Your task to perform on an android device: Open battery settings Image 0: 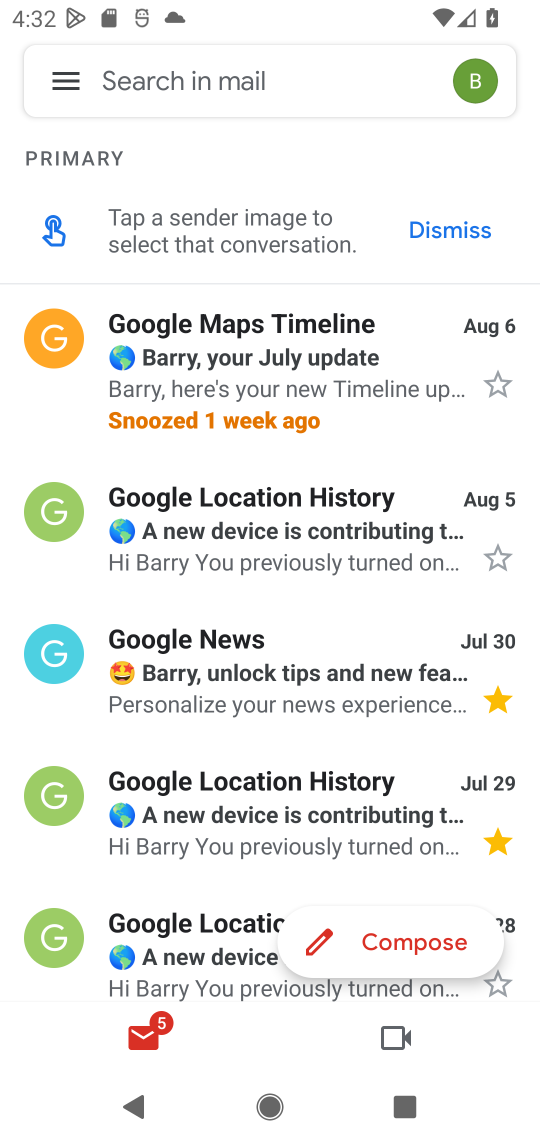
Step 0: press home button
Your task to perform on an android device: Open battery settings Image 1: 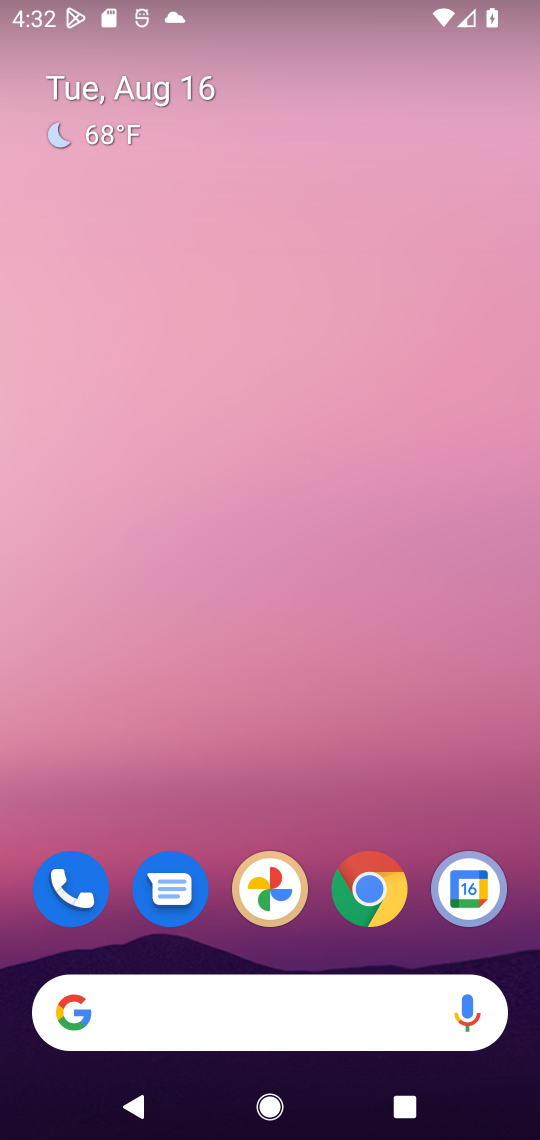
Step 1: drag from (270, 690) to (300, 97)
Your task to perform on an android device: Open battery settings Image 2: 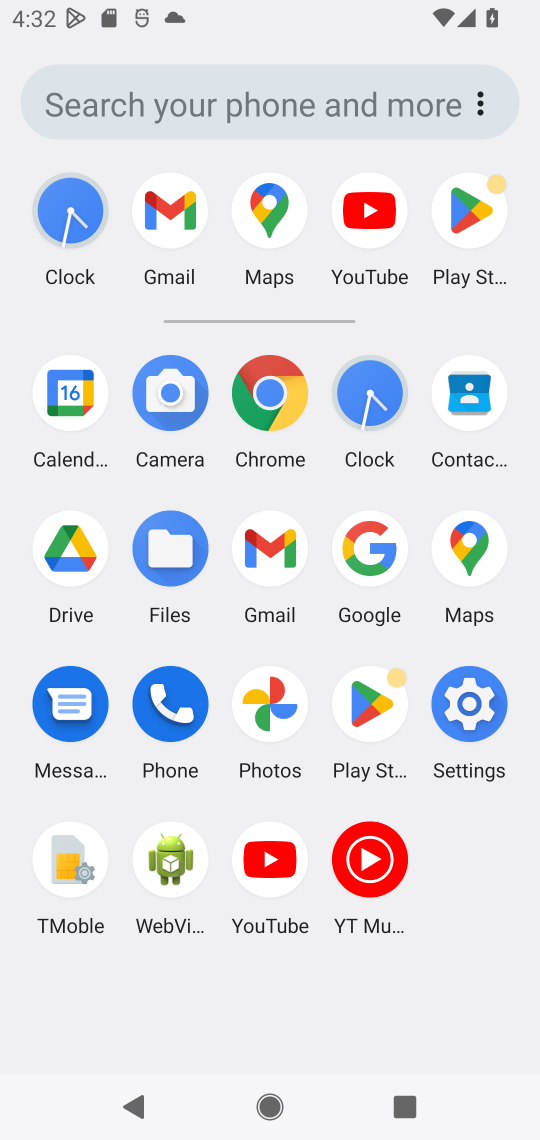
Step 2: click (510, 724)
Your task to perform on an android device: Open battery settings Image 3: 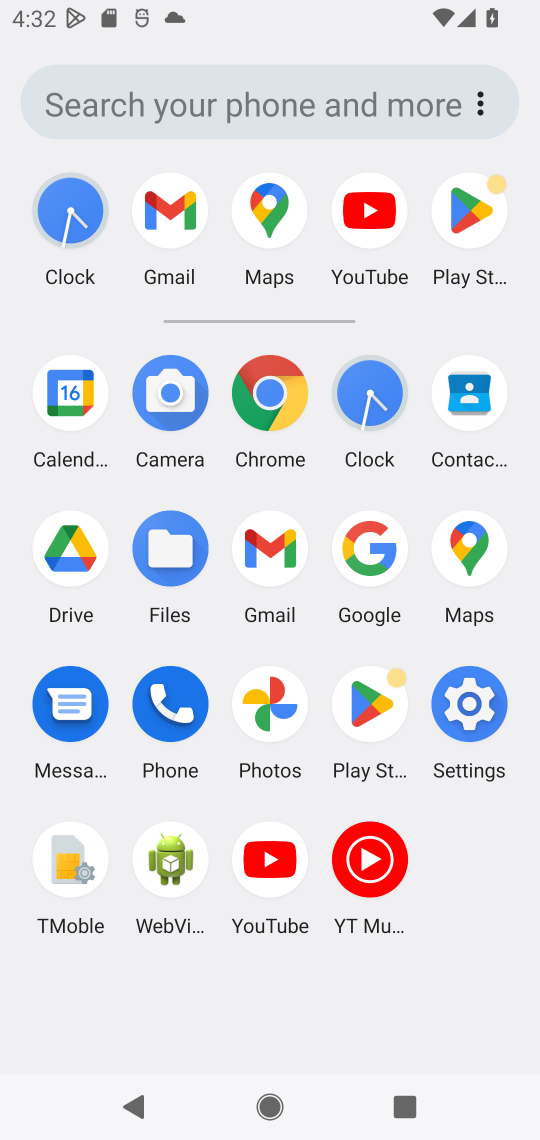
Step 3: click (476, 711)
Your task to perform on an android device: Open battery settings Image 4: 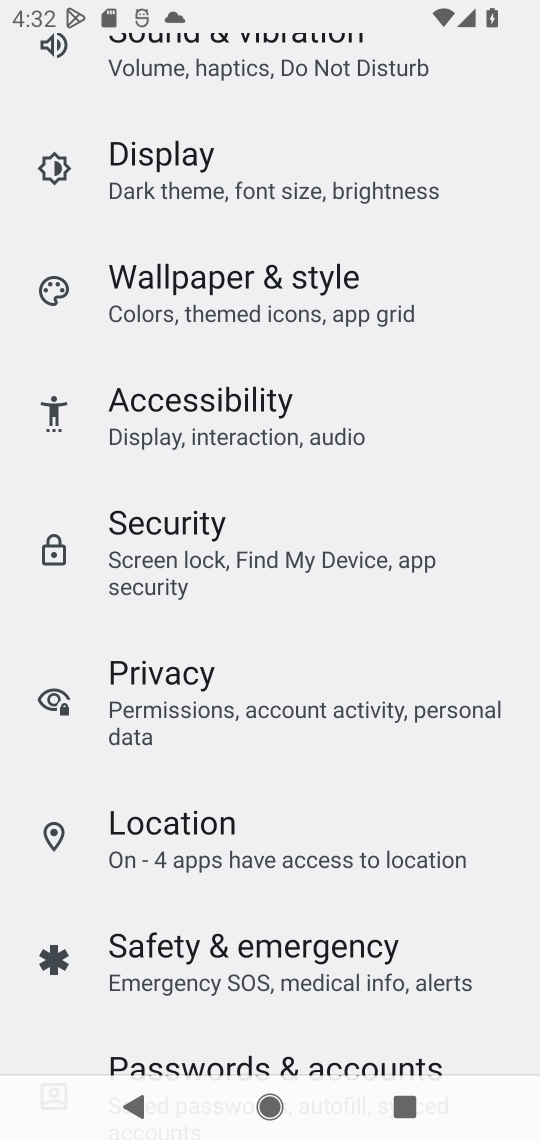
Step 4: task complete